Your task to perform on an android device: choose inbox layout in the gmail app Image 0: 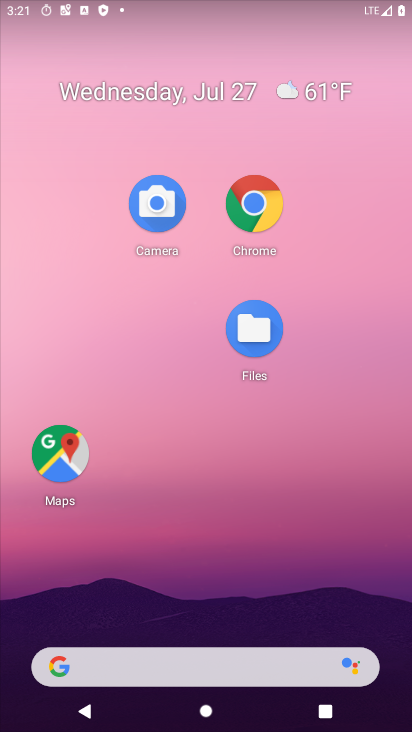
Step 0: drag from (202, 617) to (207, 186)
Your task to perform on an android device: choose inbox layout in the gmail app Image 1: 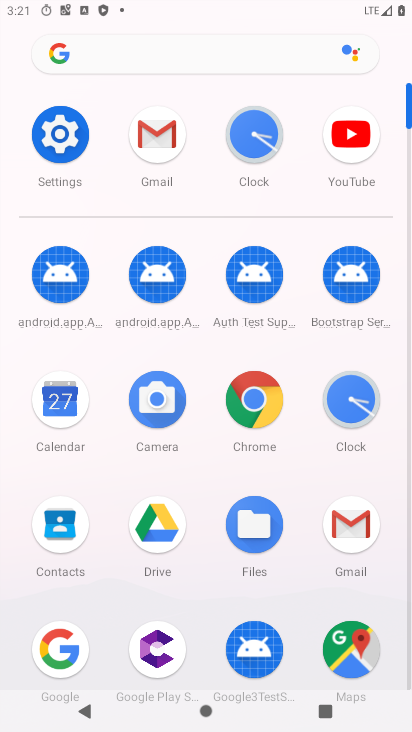
Step 1: click (356, 529)
Your task to perform on an android device: choose inbox layout in the gmail app Image 2: 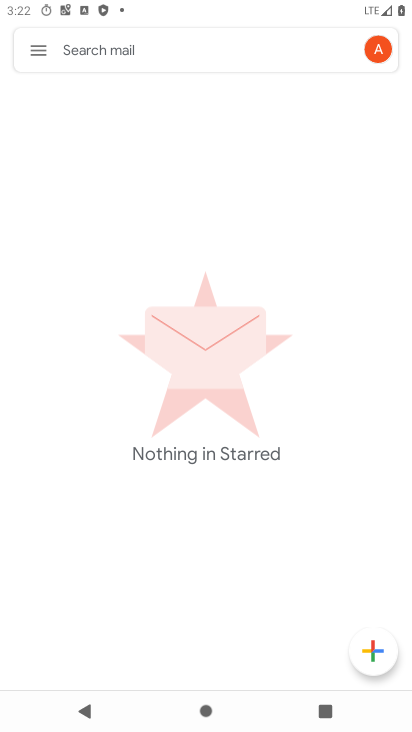
Step 2: click (42, 57)
Your task to perform on an android device: choose inbox layout in the gmail app Image 3: 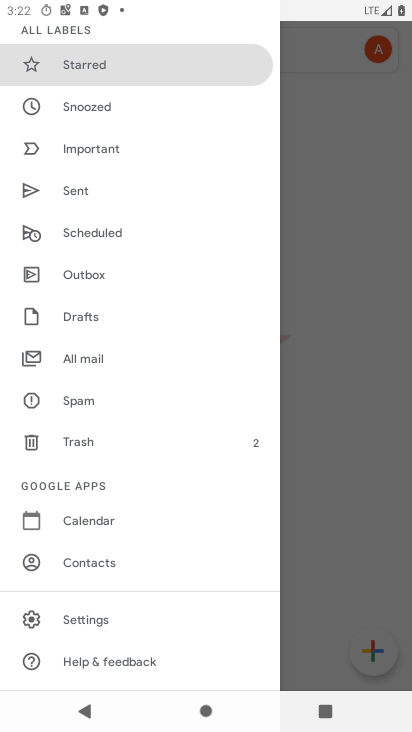
Step 3: click (130, 612)
Your task to perform on an android device: choose inbox layout in the gmail app Image 4: 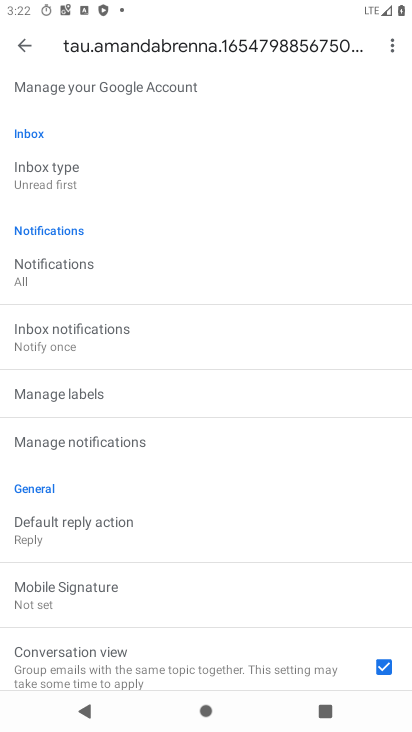
Step 4: click (88, 178)
Your task to perform on an android device: choose inbox layout in the gmail app Image 5: 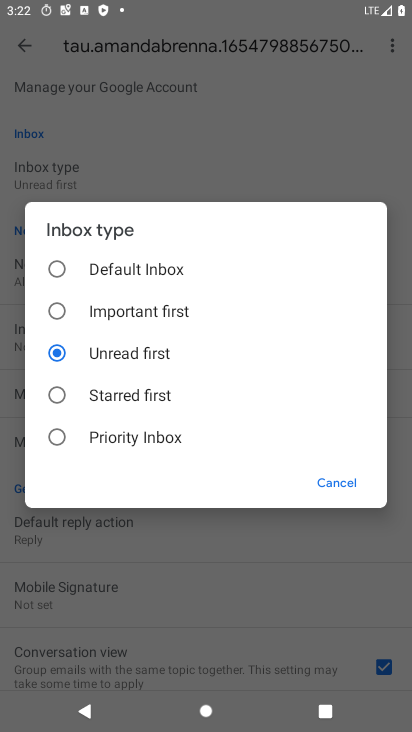
Step 5: click (122, 286)
Your task to perform on an android device: choose inbox layout in the gmail app Image 6: 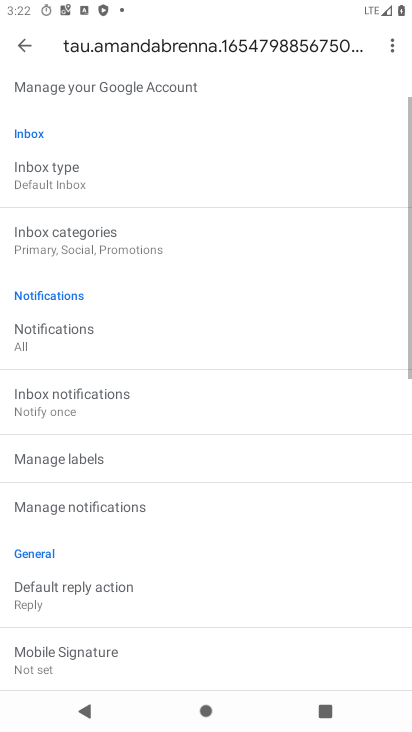
Step 6: task complete